Your task to perform on an android device: Search for Italian restaurants on Maps Image 0: 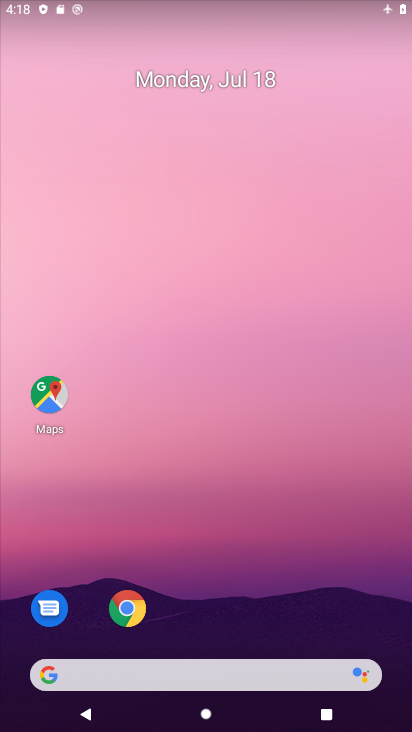
Step 0: drag from (293, 600) to (217, 106)
Your task to perform on an android device: Search for Italian restaurants on Maps Image 1: 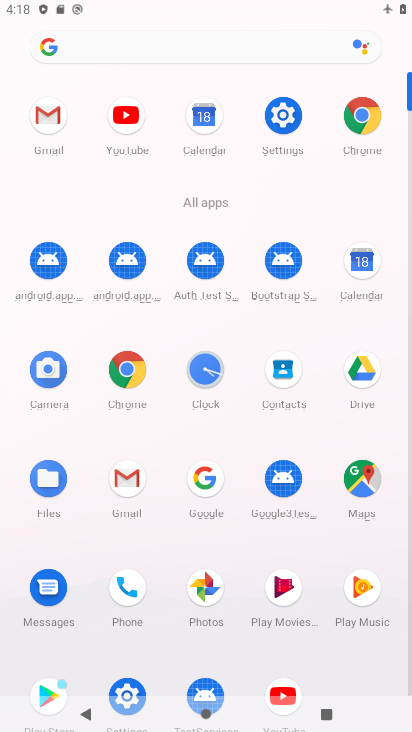
Step 1: click (364, 476)
Your task to perform on an android device: Search for Italian restaurants on Maps Image 2: 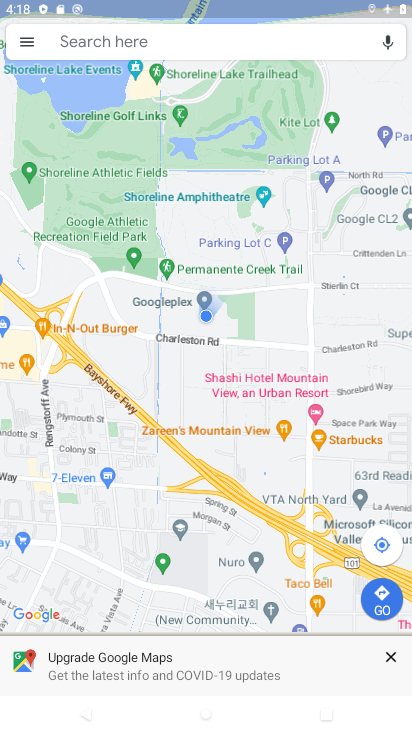
Step 2: click (209, 44)
Your task to perform on an android device: Search for Italian restaurants on Maps Image 3: 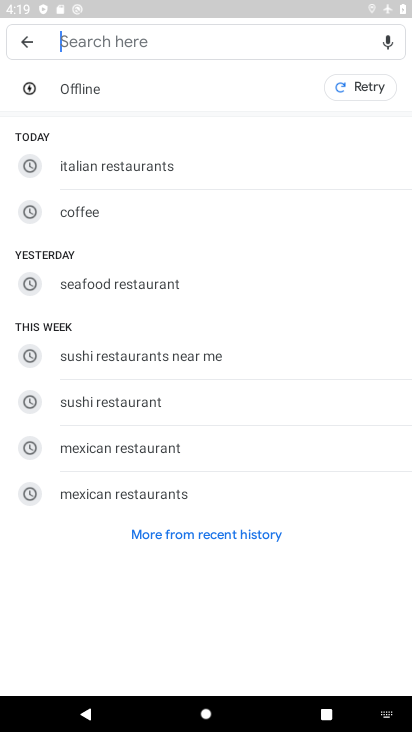
Step 3: click (156, 162)
Your task to perform on an android device: Search for Italian restaurants on Maps Image 4: 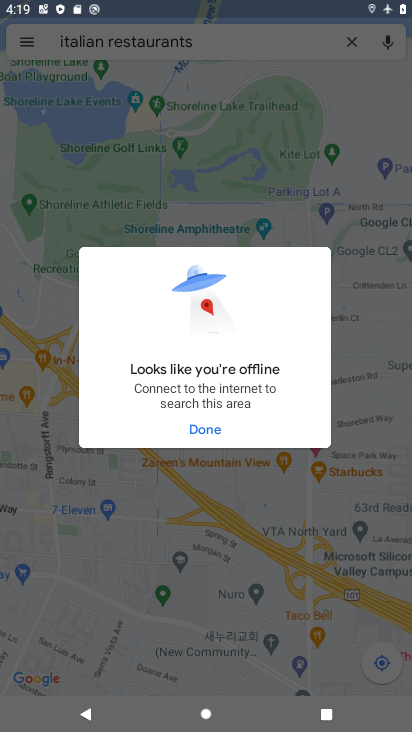
Step 4: task complete